Your task to perform on an android device: Search for sushi restaurants on Maps Image 0: 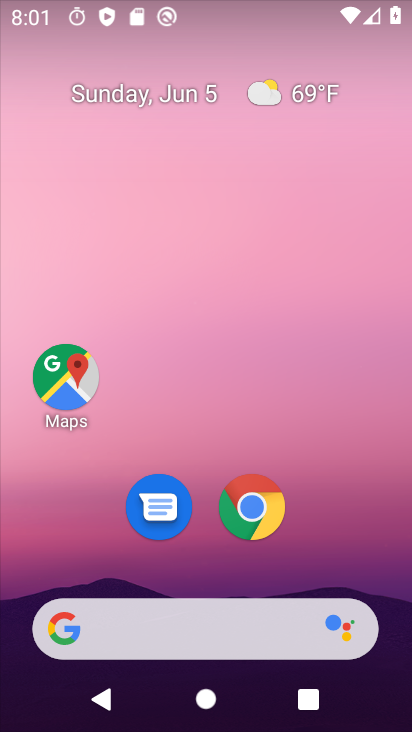
Step 0: drag from (392, 601) to (246, 19)
Your task to perform on an android device: Search for sushi restaurants on Maps Image 1: 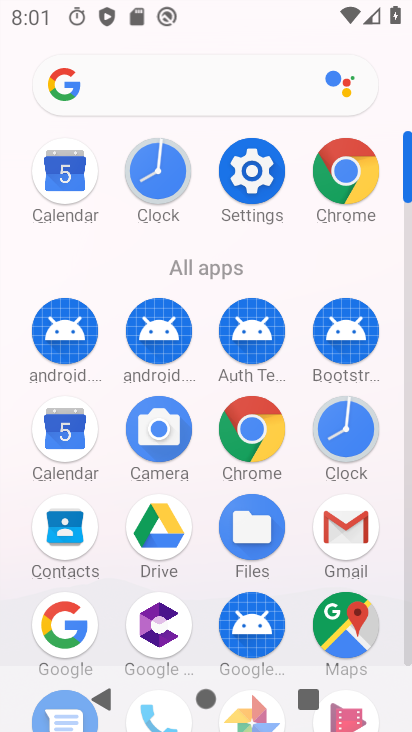
Step 1: drag from (27, 599) to (11, 264)
Your task to perform on an android device: Search for sushi restaurants on Maps Image 2: 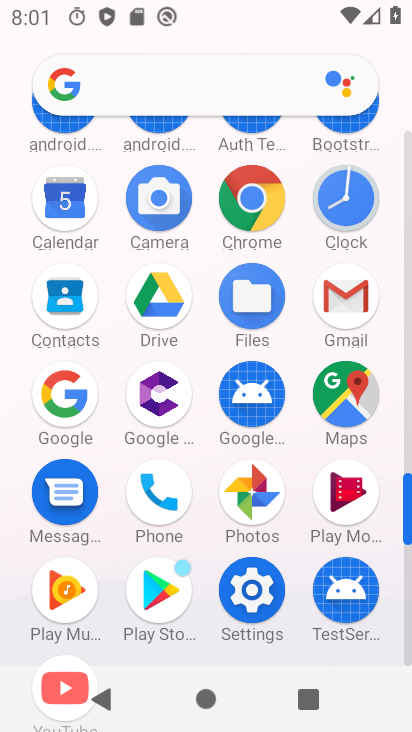
Step 2: click (347, 397)
Your task to perform on an android device: Search for sushi restaurants on Maps Image 3: 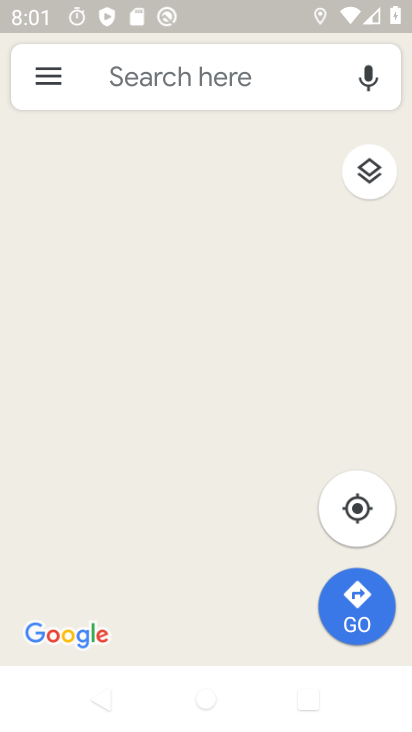
Step 3: click (272, 76)
Your task to perform on an android device: Search for sushi restaurants on Maps Image 4: 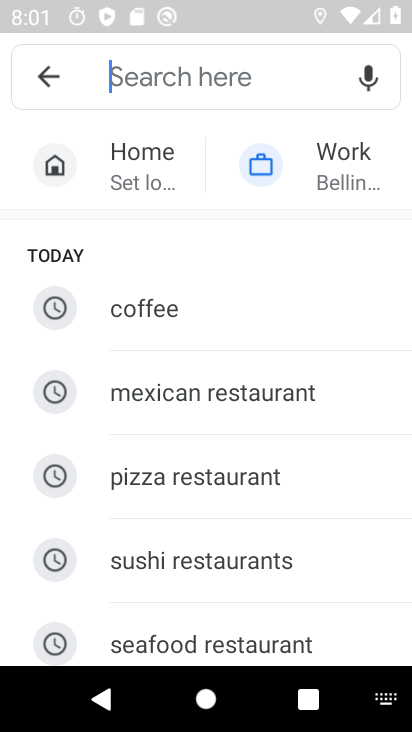
Step 4: click (235, 548)
Your task to perform on an android device: Search for sushi restaurants on Maps Image 5: 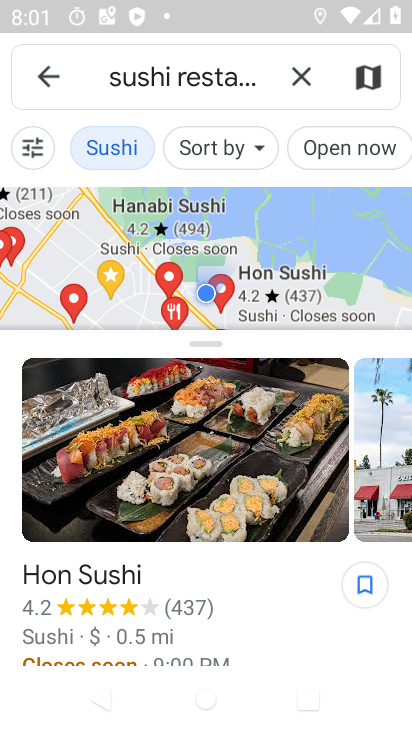
Step 5: task complete